Your task to perform on an android device: see tabs open on other devices in the chrome app Image 0: 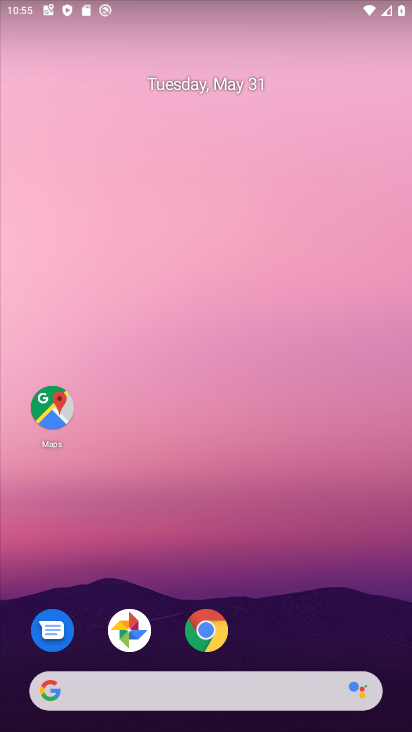
Step 0: drag from (258, 496) to (232, 255)
Your task to perform on an android device: see tabs open on other devices in the chrome app Image 1: 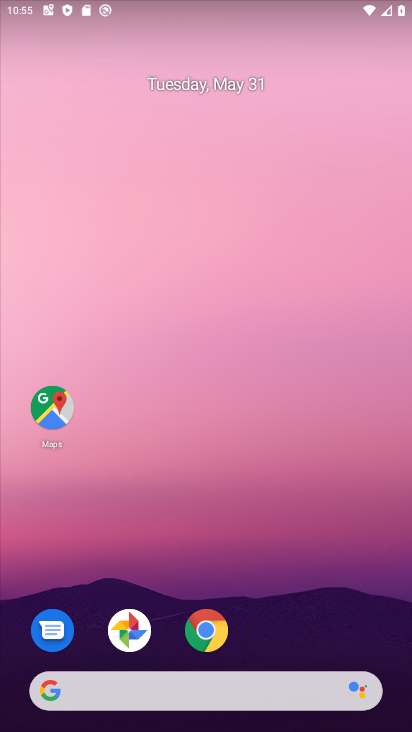
Step 1: click (206, 618)
Your task to perform on an android device: see tabs open on other devices in the chrome app Image 2: 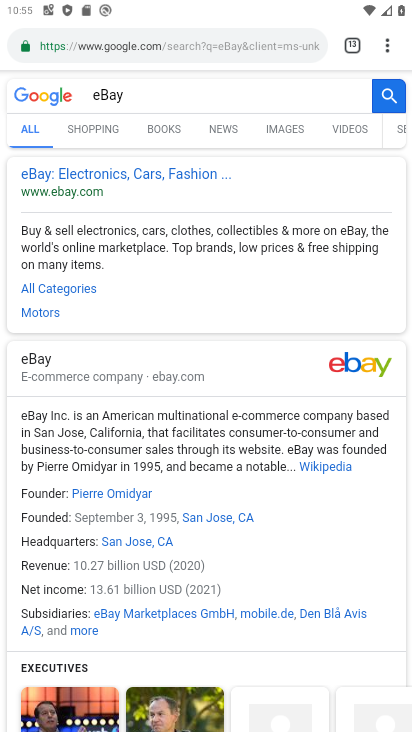
Step 2: click (397, 47)
Your task to perform on an android device: see tabs open on other devices in the chrome app Image 3: 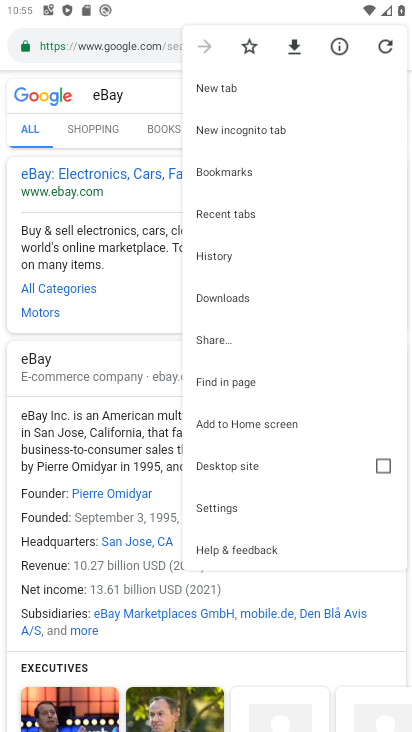
Step 3: click (245, 88)
Your task to perform on an android device: see tabs open on other devices in the chrome app Image 4: 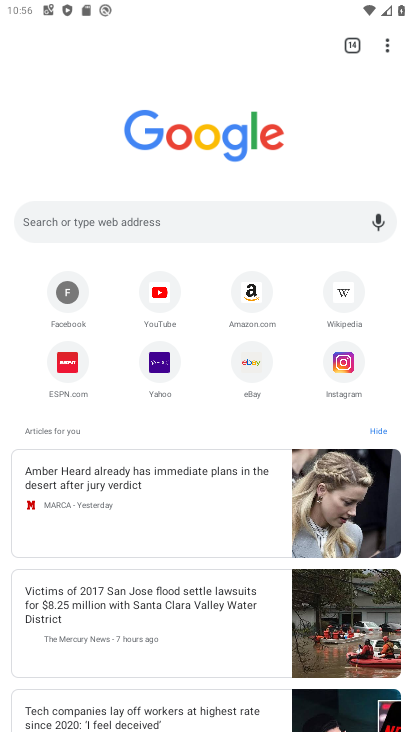
Step 4: task complete